Your task to perform on an android device: change your default location settings in chrome Image 0: 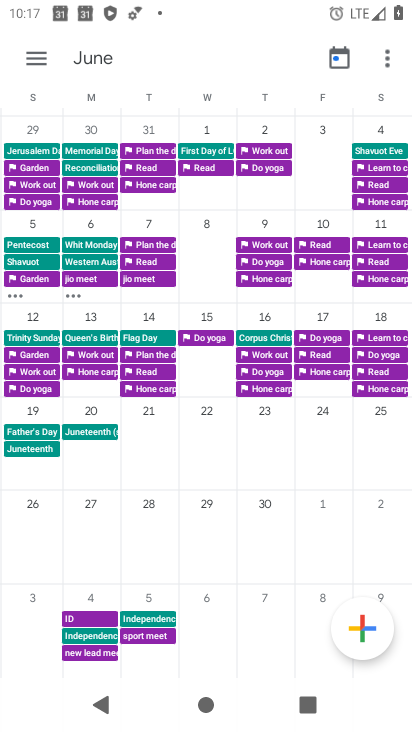
Step 0: press home button
Your task to perform on an android device: change your default location settings in chrome Image 1: 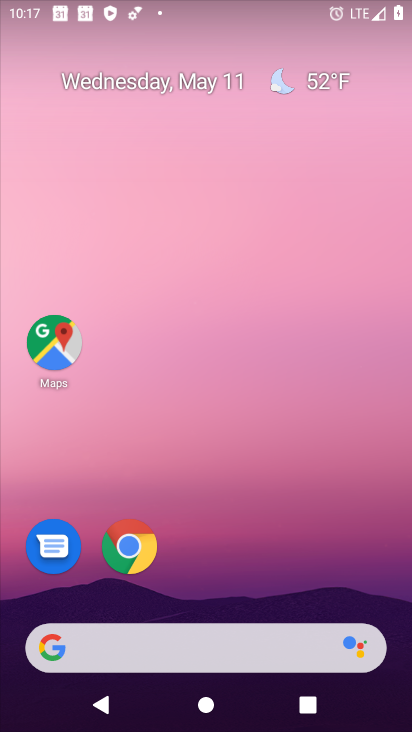
Step 1: click (123, 539)
Your task to perform on an android device: change your default location settings in chrome Image 2: 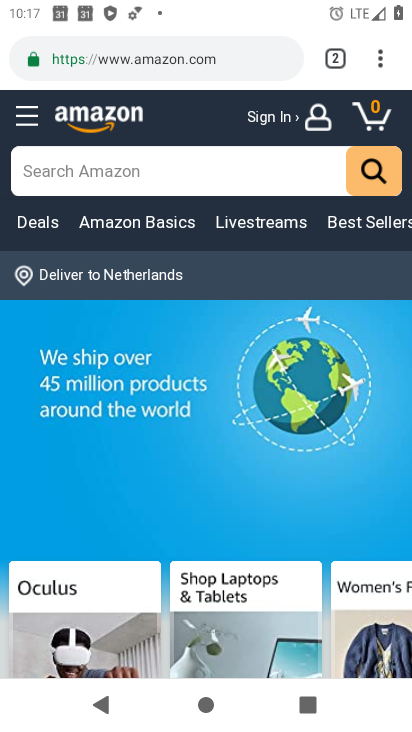
Step 2: drag from (387, 63) to (266, 572)
Your task to perform on an android device: change your default location settings in chrome Image 3: 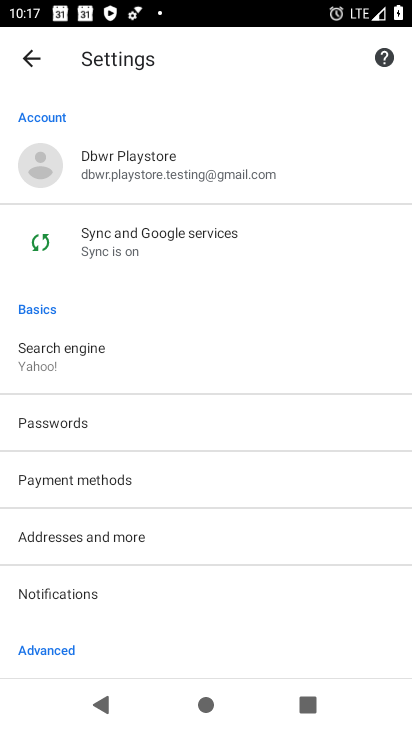
Step 3: drag from (266, 572) to (312, 152)
Your task to perform on an android device: change your default location settings in chrome Image 4: 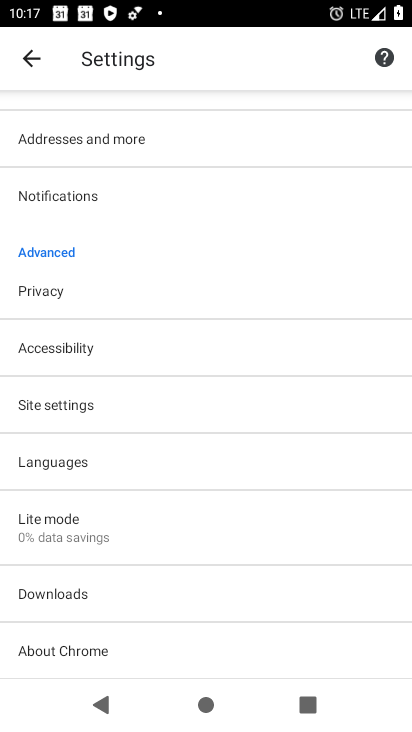
Step 4: click (93, 404)
Your task to perform on an android device: change your default location settings in chrome Image 5: 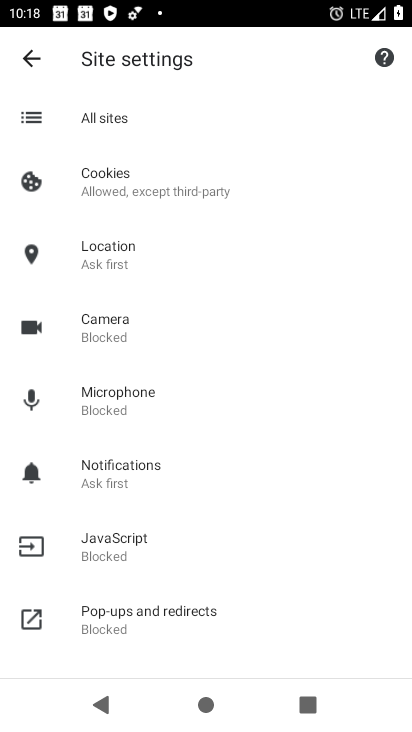
Step 5: click (107, 267)
Your task to perform on an android device: change your default location settings in chrome Image 6: 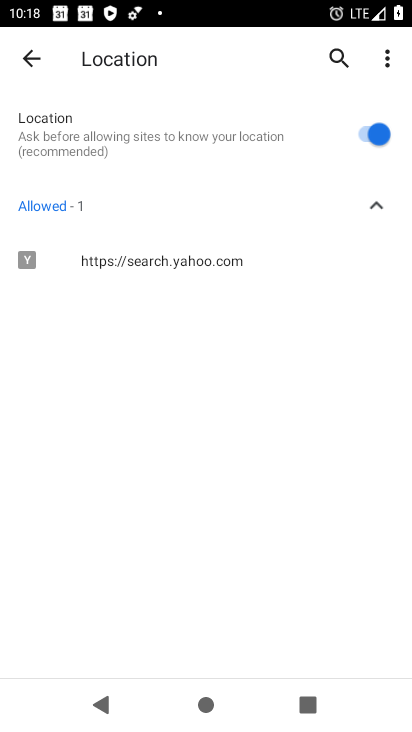
Step 6: click (369, 130)
Your task to perform on an android device: change your default location settings in chrome Image 7: 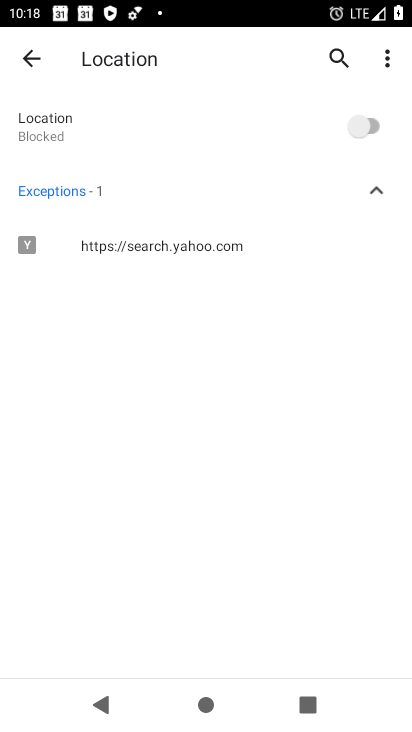
Step 7: task complete